Your task to perform on an android device: Search for Mexican restaurants on Maps Image 0: 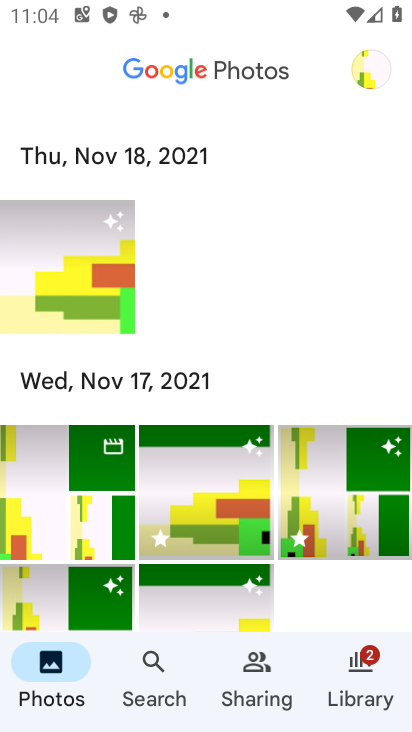
Step 0: press home button
Your task to perform on an android device: Search for Mexican restaurants on Maps Image 1: 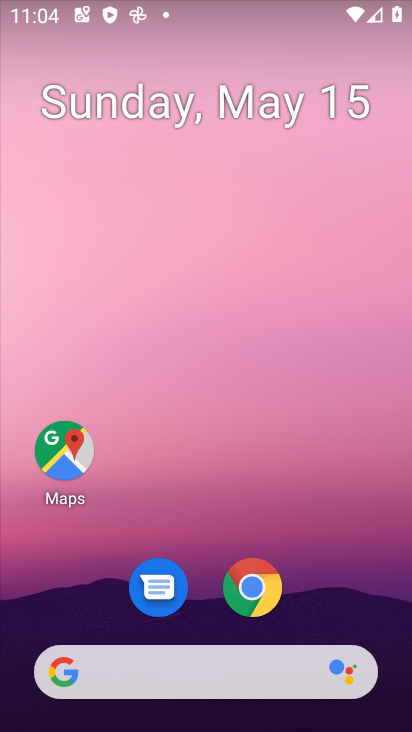
Step 1: drag from (390, 647) to (281, 126)
Your task to perform on an android device: Search for Mexican restaurants on Maps Image 2: 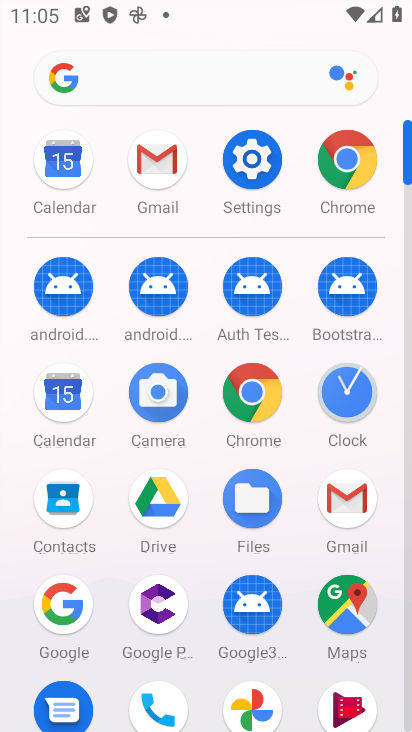
Step 2: click (358, 590)
Your task to perform on an android device: Search for Mexican restaurants on Maps Image 3: 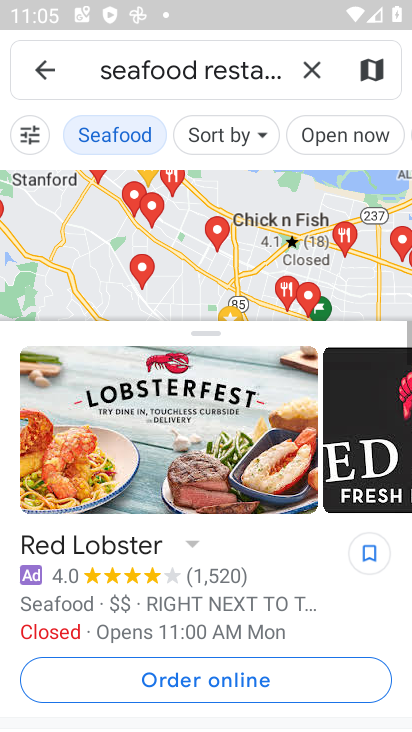
Step 3: click (311, 75)
Your task to perform on an android device: Search for Mexican restaurants on Maps Image 4: 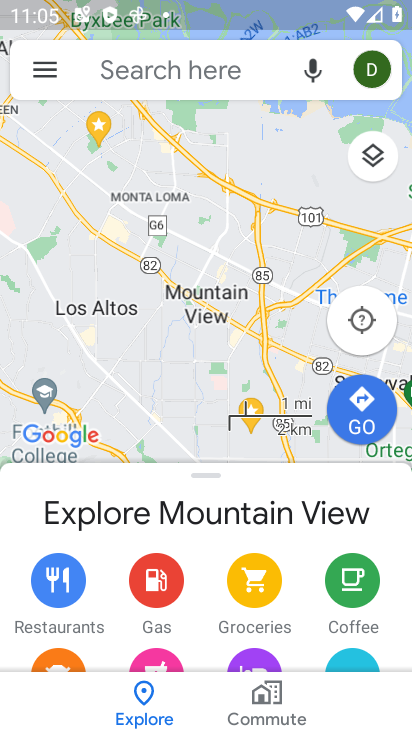
Step 4: click (153, 74)
Your task to perform on an android device: Search for Mexican restaurants on Maps Image 5: 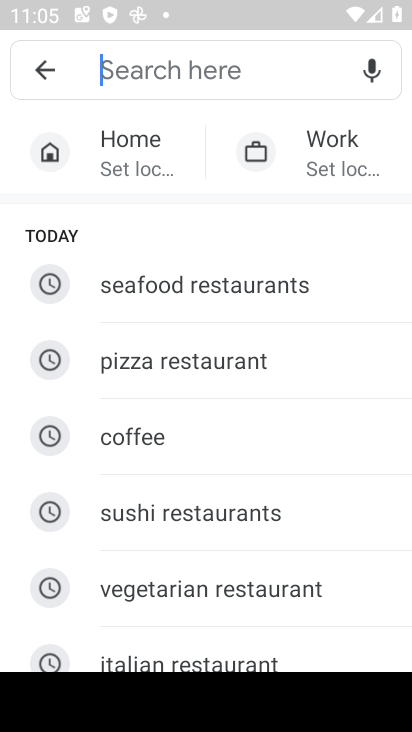
Step 5: drag from (216, 601) to (192, 255)
Your task to perform on an android device: Search for Mexican restaurants on Maps Image 6: 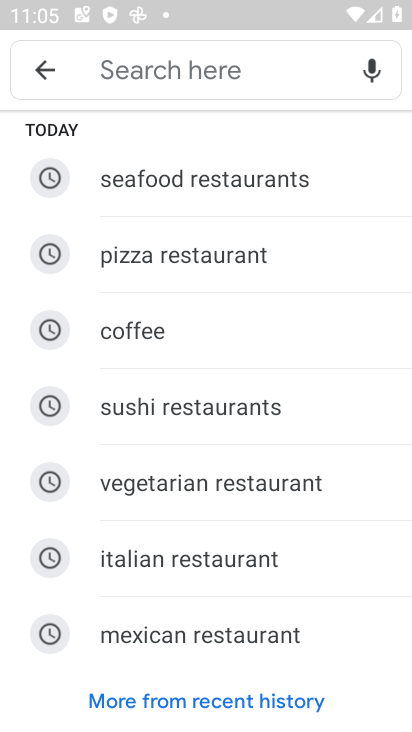
Step 6: click (241, 634)
Your task to perform on an android device: Search for Mexican restaurants on Maps Image 7: 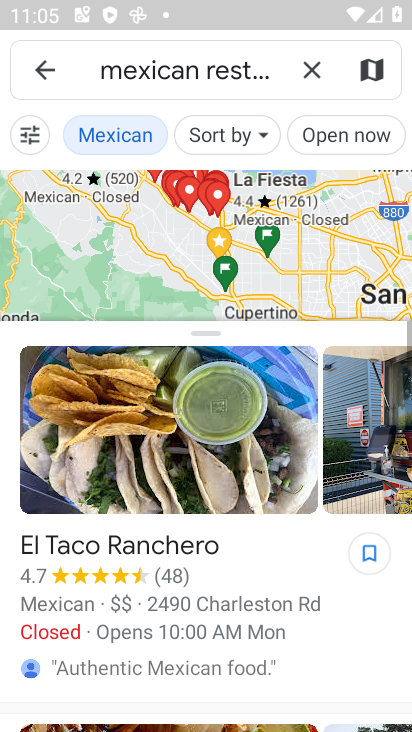
Step 7: task complete